Your task to perform on an android device: Go to wifi settings Image 0: 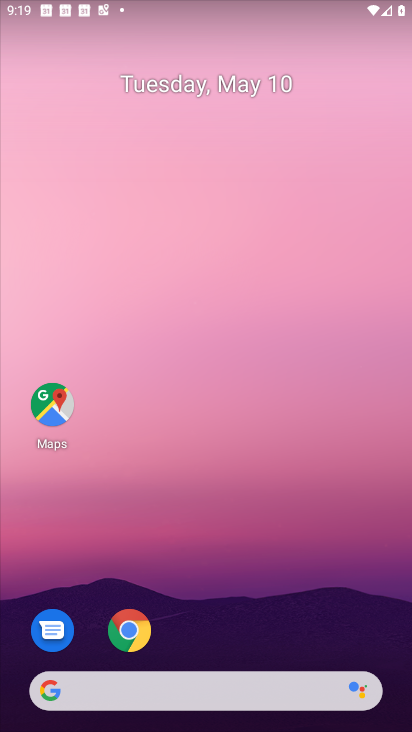
Step 0: drag from (268, 655) to (308, 51)
Your task to perform on an android device: Go to wifi settings Image 1: 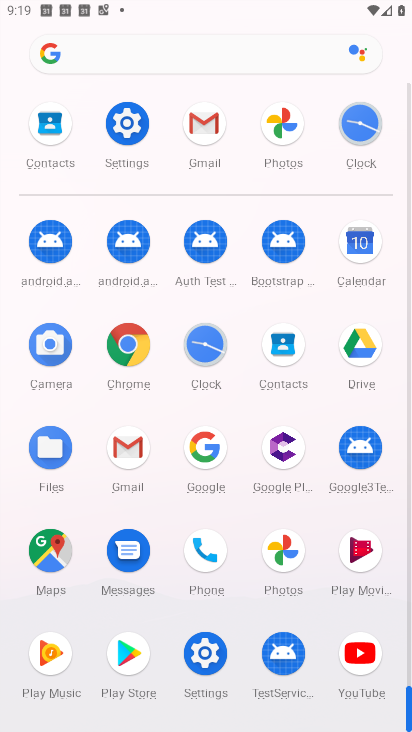
Step 1: click (136, 140)
Your task to perform on an android device: Go to wifi settings Image 2: 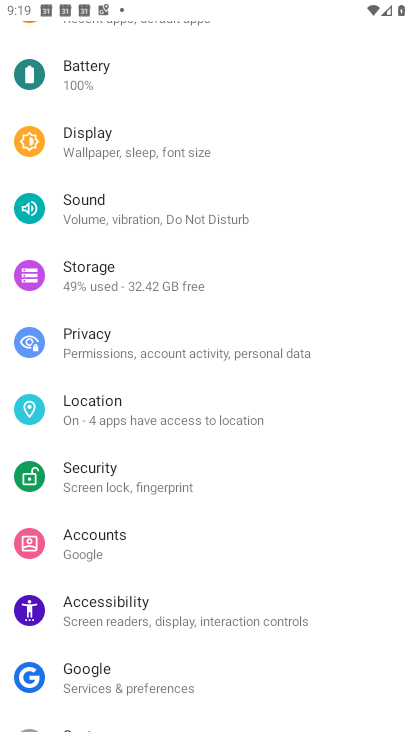
Step 2: drag from (190, 315) to (51, 728)
Your task to perform on an android device: Go to wifi settings Image 3: 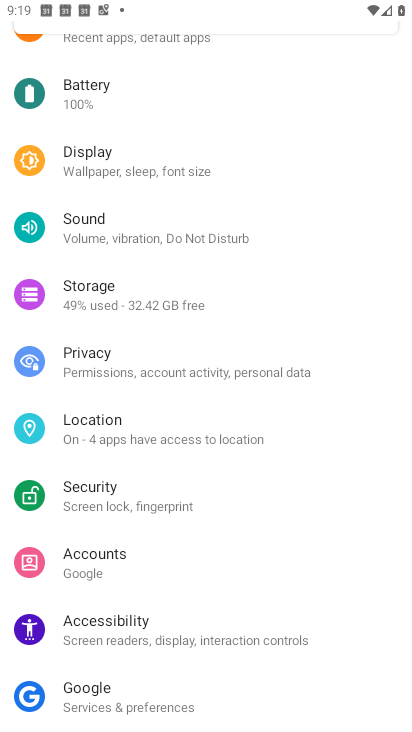
Step 3: drag from (195, 91) to (112, 721)
Your task to perform on an android device: Go to wifi settings Image 4: 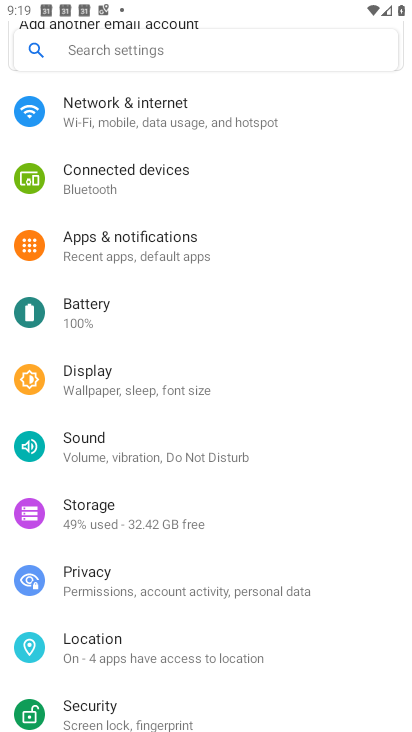
Step 4: click (253, 113)
Your task to perform on an android device: Go to wifi settings Image 5: 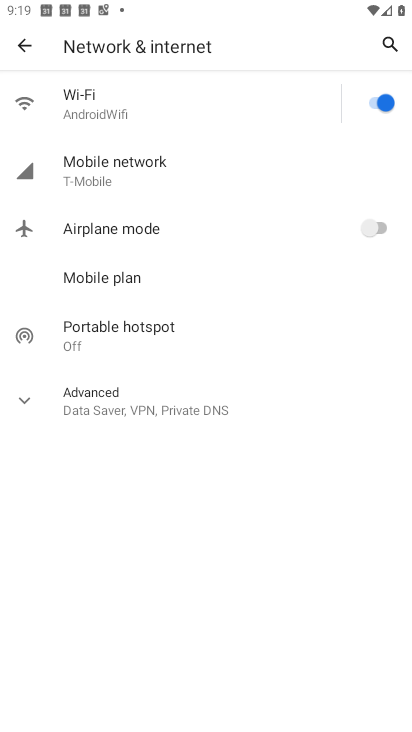
Step 5: click (276, 130)
Your task to perform on an android device: Go to wifi settings Image 6: 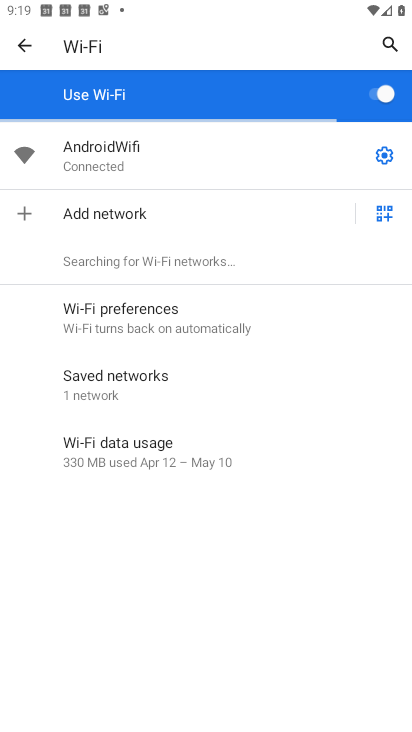
Step 6: click (388, 151)
Your task to perform on an android device: Go to wifi settings Image 7: 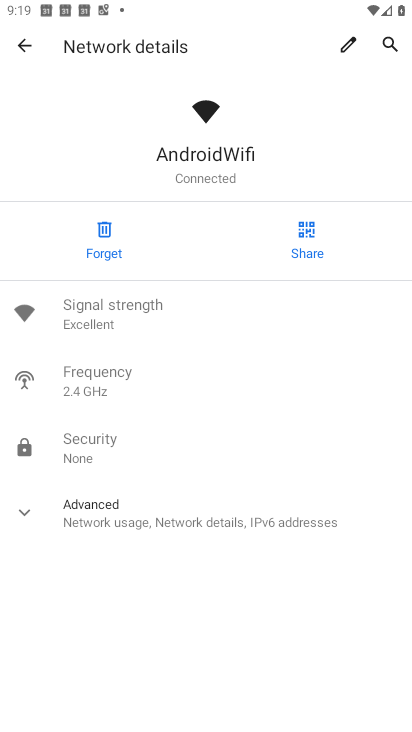
Step 7: task complete